Your task to perform on an android device: Search for pizza restaurants on Maps Image 0: 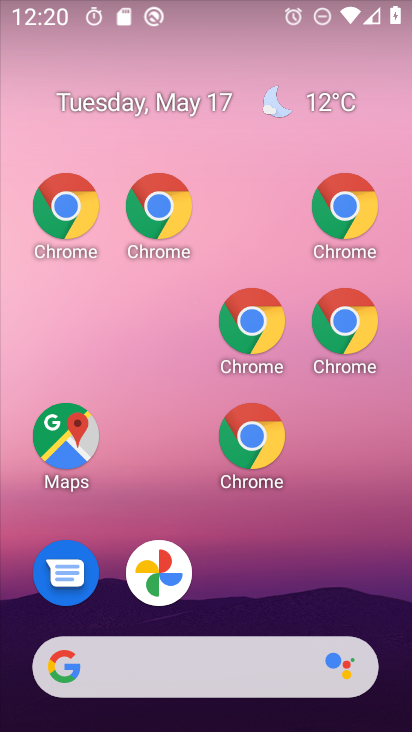
Step 0: drag from (351, 594) to (247, 143)
Your task to perform on an android device: Search for pizza restaurants on Maps Image 1: 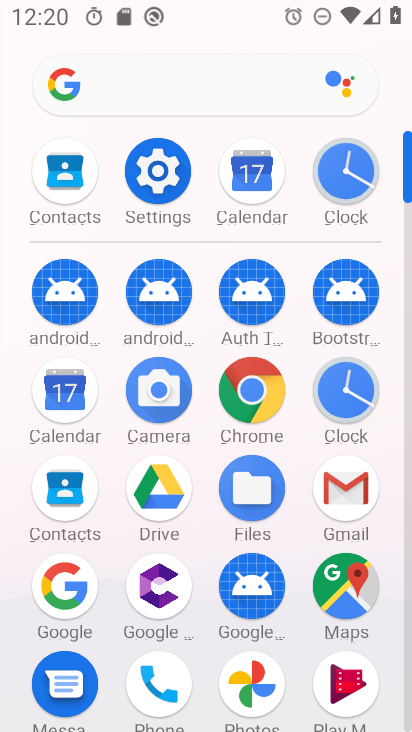
Step 1: click (329, 608)
Your task to perform on an android device: Search for pizza restaurants on Maps Image 2: 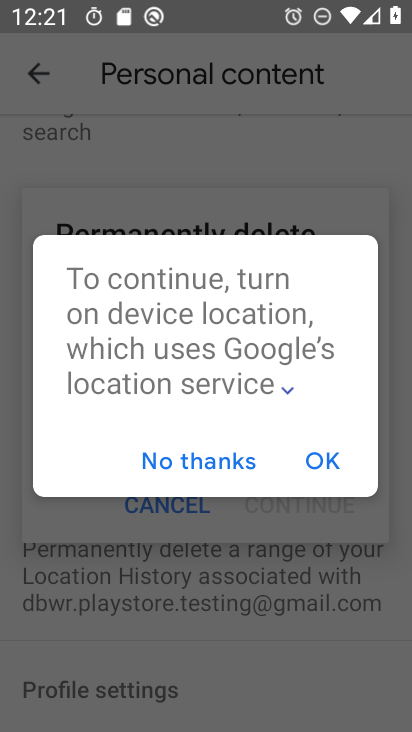
Step 2: click (247, 467)
Your task to perform on an android device: Search for pizza restaurants on Maps Image 3: 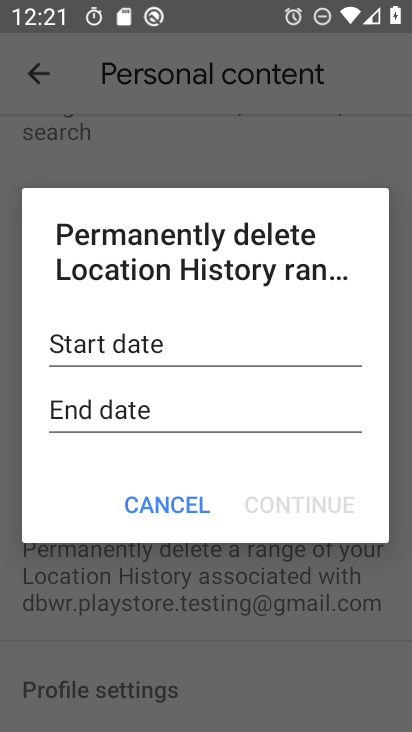
Step 3: click (182, 522)
Your task to perform on an android device: Search for pizza restaurants on Maps Image 4: 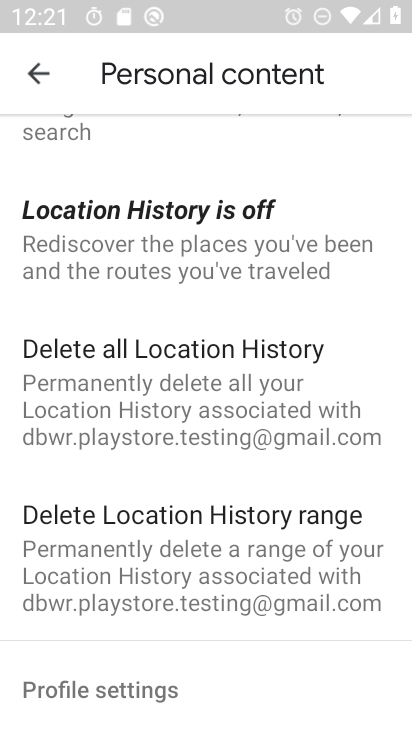
Step 4: click (38, 73)
Your task to perform on an android device: Search for pizza restaurants on Maps Image 5: 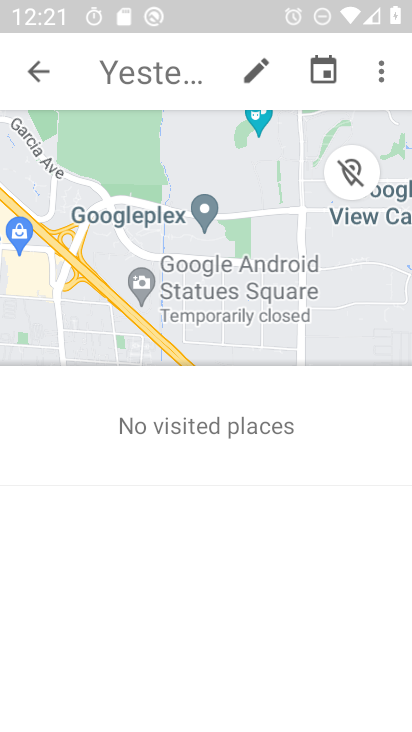
Step 5: click (87, 80)
Your task to perform on an android device: Search for pizza restaurants on Maps Image 6: 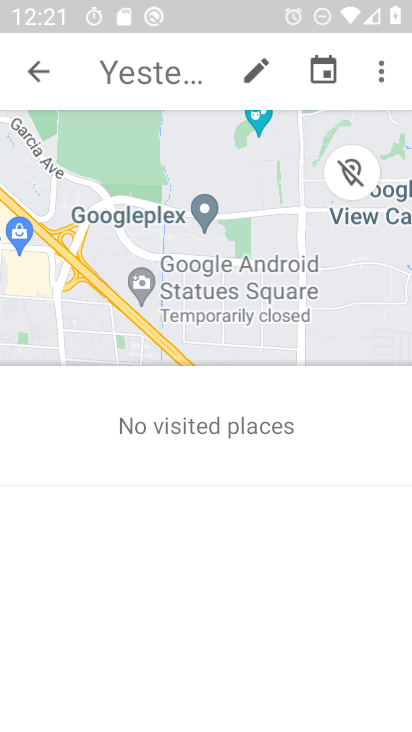
Step 6: click (95, 76)
Your task to perform on an android device: Search for pizza restaurants on Maps Image 7: 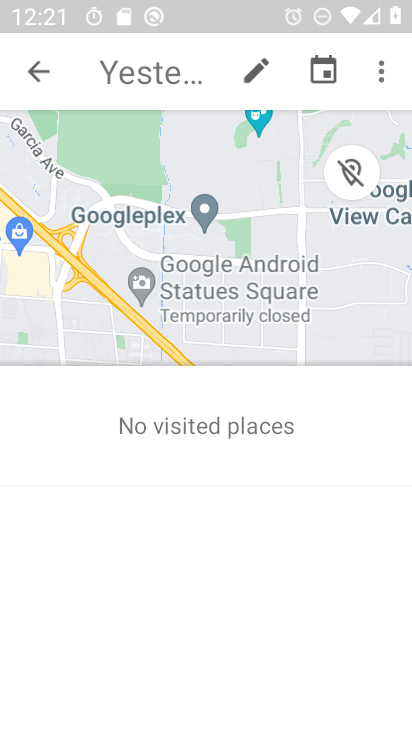
Step 7: click (99, 71)
Your task to perform on an android device: Search for pizza restaurants on Maps Image 8: 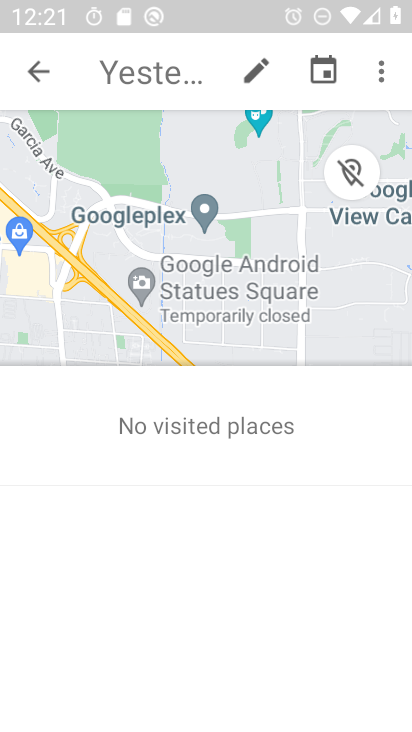
Step 8: click (99, 71)
Your task to perform on an android device: Search for pizza restaurants on Maps Image 9: 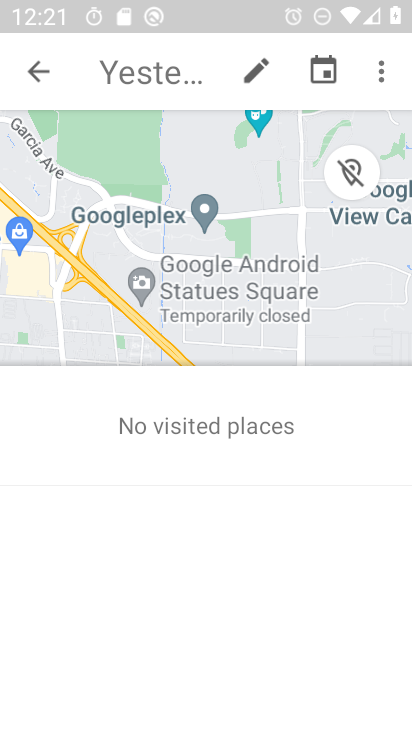
Step 9: click (101, 70)
Your task to perform on an android device: Search for pizza restaurants on Maps Image 10: 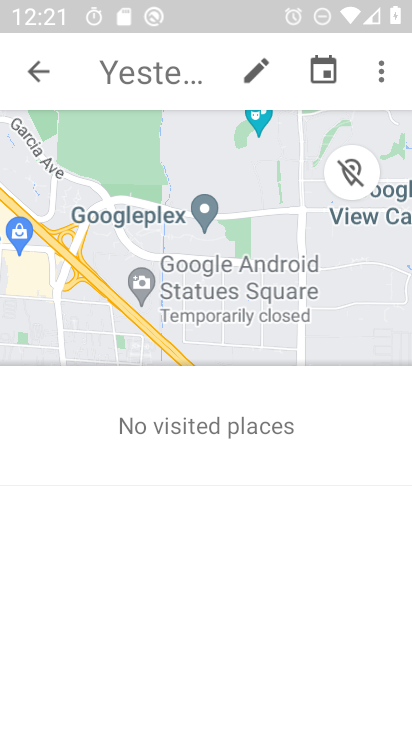
Step 10: click (49, 63)
Your task to perform on an android device: Search for pizza restaurants on Maps Image 11: 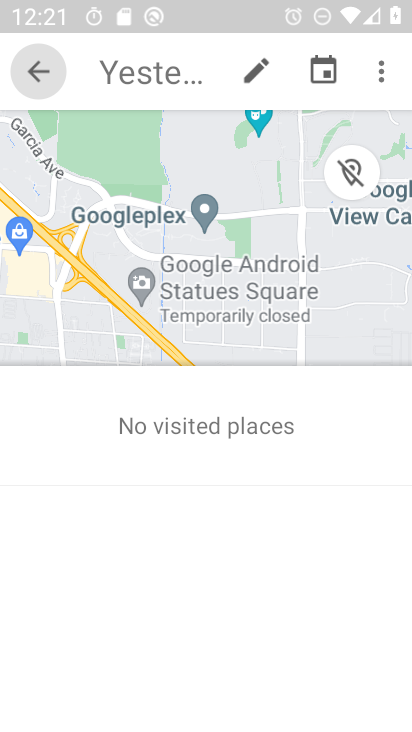
Step 11: click (30, 70)
Your task to perform on an android device: Search for pizza restaurants on Maps Image 12: 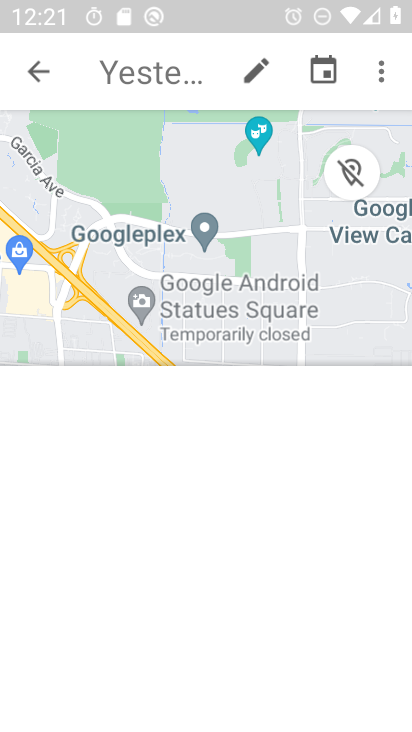
Step 12: click (35, 66)
Your task to perform on an android device: Search for pizza restaurants on Maps Image 13: 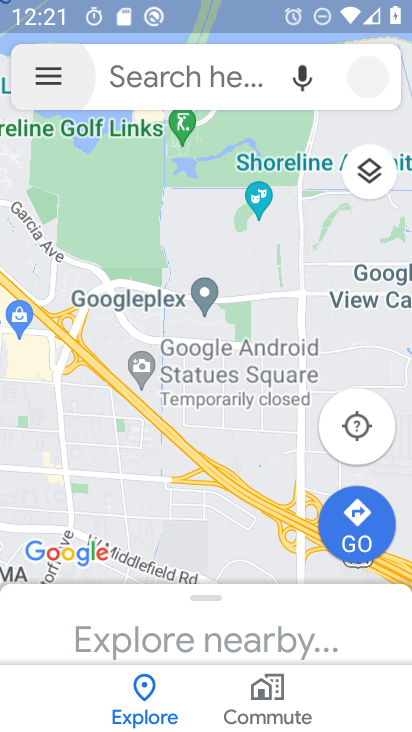
Step 13: click (110, 72)
Your task to perform on an android device: Search for pizza restaurants on Maps Image 14: 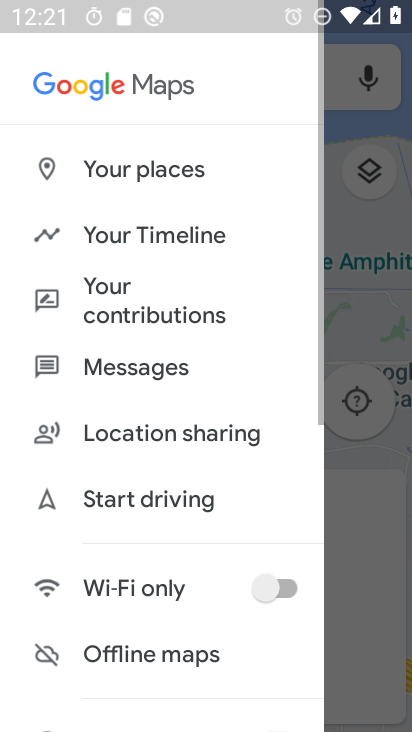
Step 14: click (335, 217)
Your task to perform on an android device: Search for pizza restaurants on Maps Image 15: 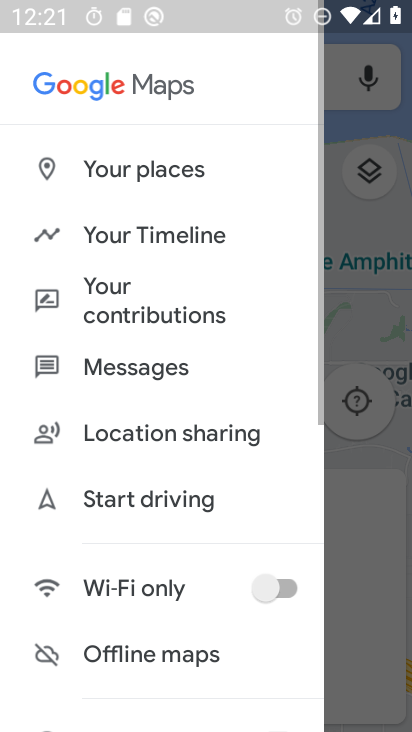
Step 15: click (335, 217)
Your task to perform on an android device: Search for pizza restaurants on Maps Image 16: 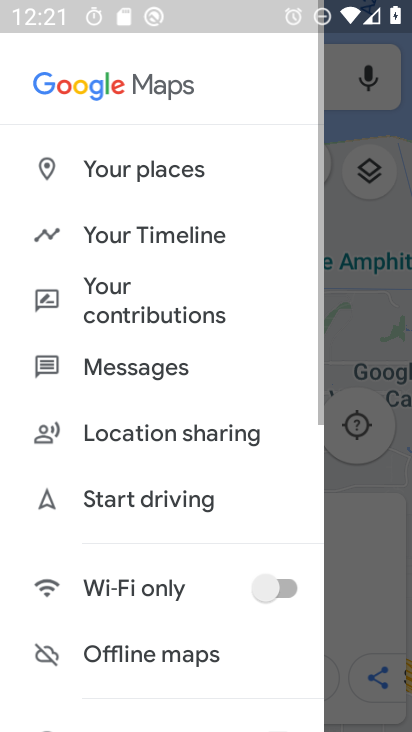
Step 16: click (335, 217)
Your task to perform on an android device: Search for pizza restaurants on Maps Image 17: 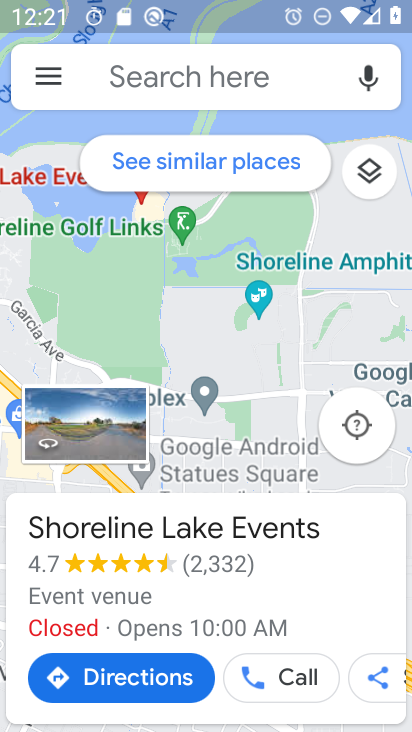
Step 17: click (106, 66)
Your task to perform on an android device: Search for pizza restaurants on Maps Image 18: 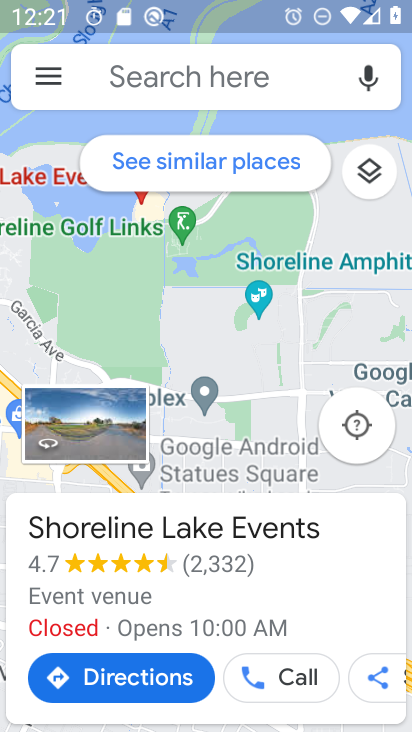
Step 18: click (108, 78)
Your task to perform on an android device: Search for pizza restaurants on Maps Image 19: 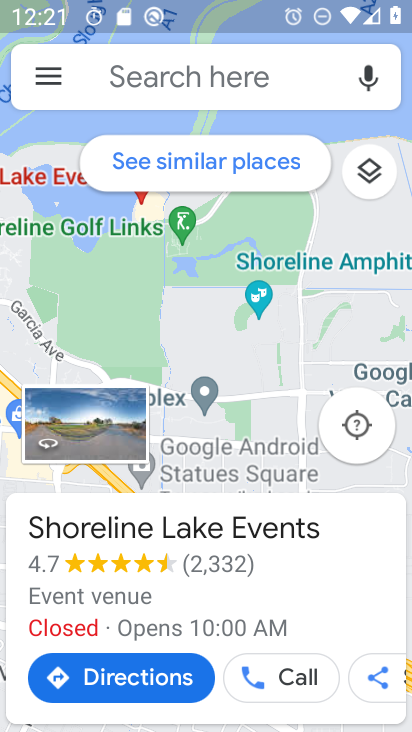
Step 19: click (109, 78)
Your task to perform on an android device: Search for pizza restaurants on Maps Image 20: 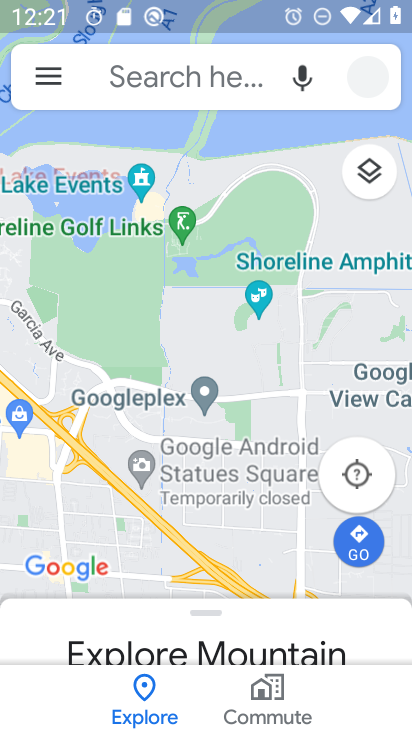
Step 20: click (109, 78)
Your task to perform on an android device: Search for pizza restaurants on Maps Image 21: 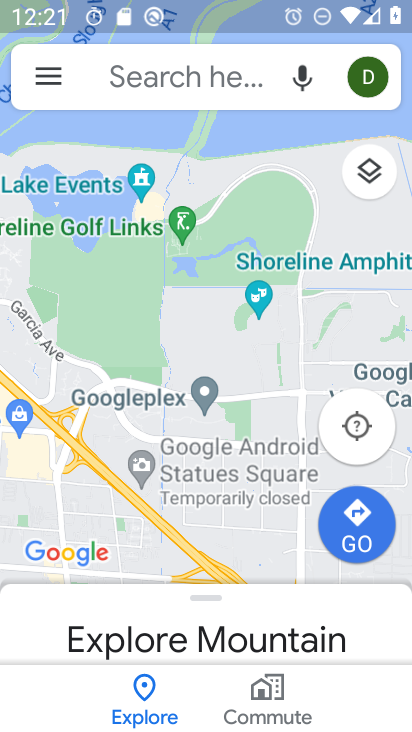
Step 21: click (109, 78)
Your task to perform on an android device: Search for pizza restaurants on Maps Image 22: 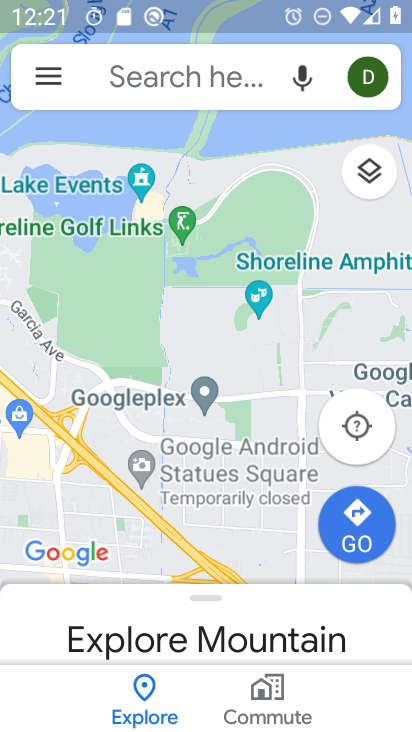
Step 22: click (109, 78)
Your task to perform on an android device: Search for pizza restaurants on Maps Image 23: 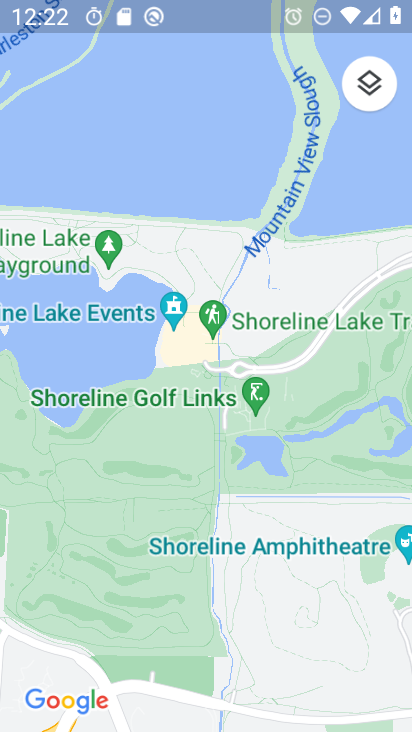
Step 23: type "pizza resaturants"
Your task to perform on an android device: Search for pizza restaurants on Maps Image 24: 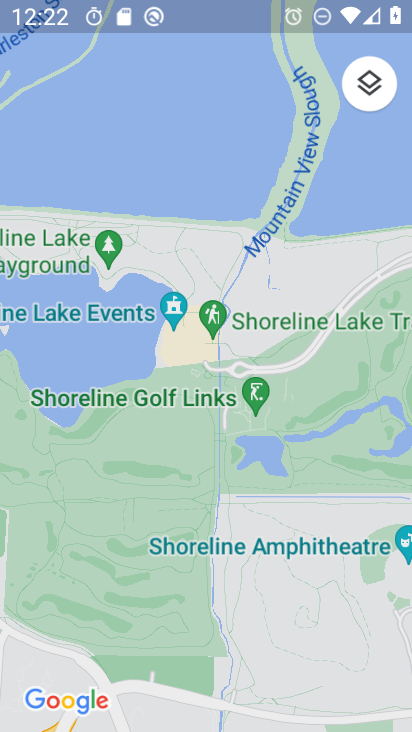
Step 24: task complete